Your task to perform on an android device: What's the weather? Image 0: 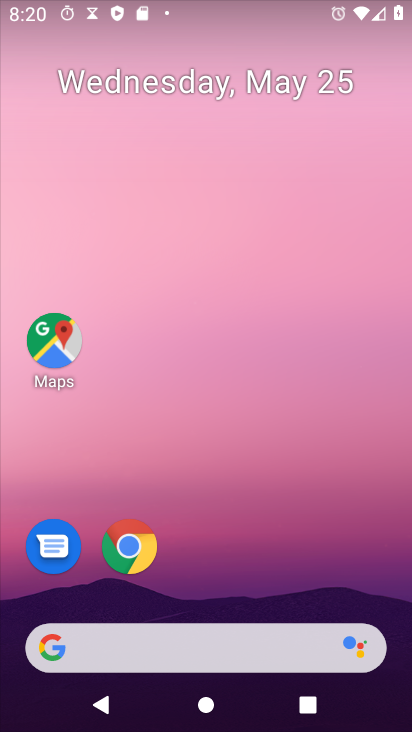
Step 0: click (183, 658)
Your task to perform on an android device: What's the weather? Image 1: 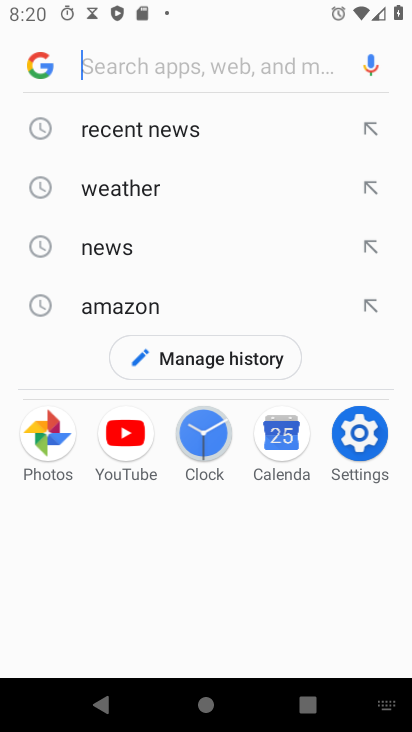
Step 1: click (114, 193)
Your task to perform on an android device: What's the weather? Image 2: 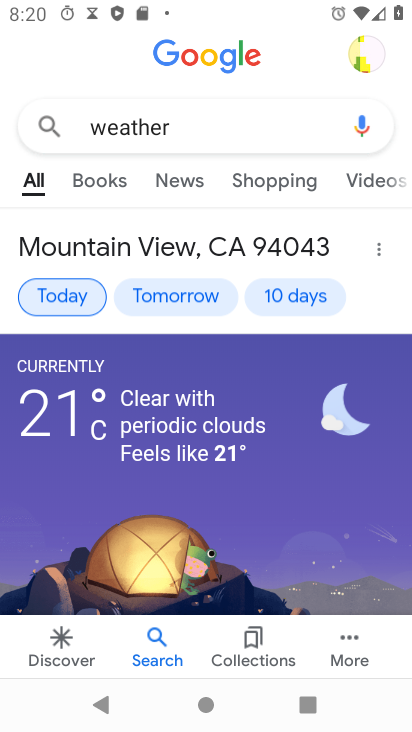
Step 2: drag from (237, 528) to (256, 429)
Your task to perform on an android device: What's the weather? Image 3: 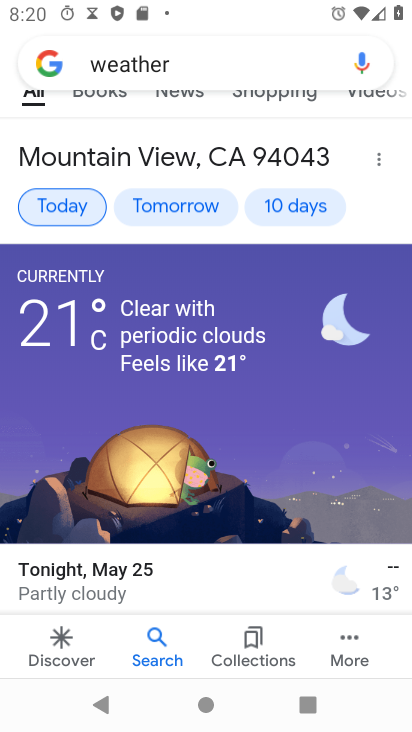
Step 3: drag from (212, 531) to (229, 276)
Your task to perform on an android device: What's the weather? Image 4: 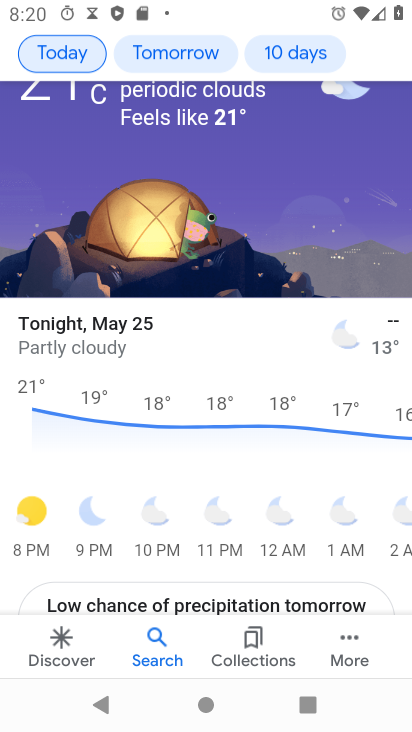
Step 4: drag from (182, 475) to (209, 273)
Your task to perform on an android device: What's the weather? Image 5: 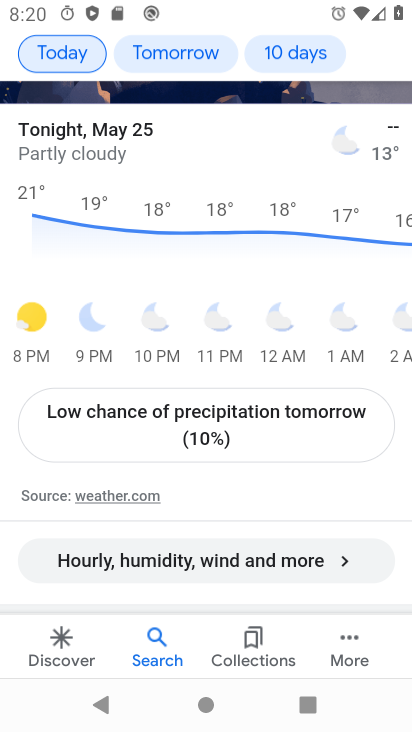
Step 5: drag from (321, 356) to (7, 262)
Your task to perform on an android device: What's the weather? Image 6: 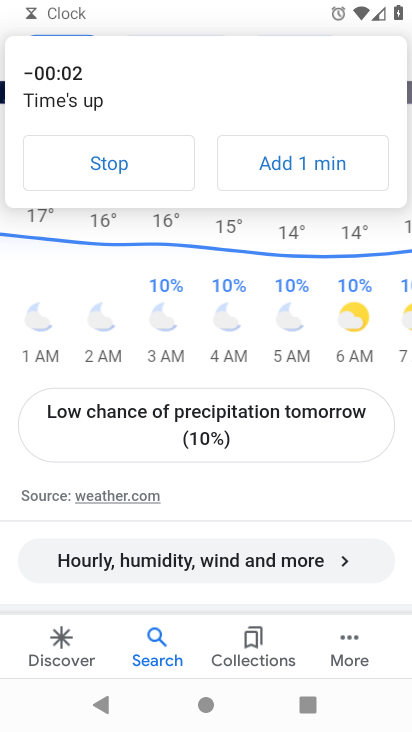
Step 6: click (99, 150)
Your task to perform on an android device: What's the weather? Image 7: 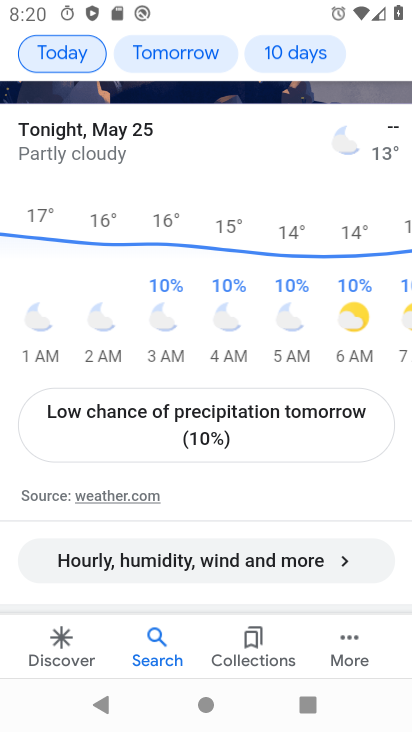
Step 7: task complete